Your task to perform on an android device: Search for Mexican restaurants on Maps Image 0: 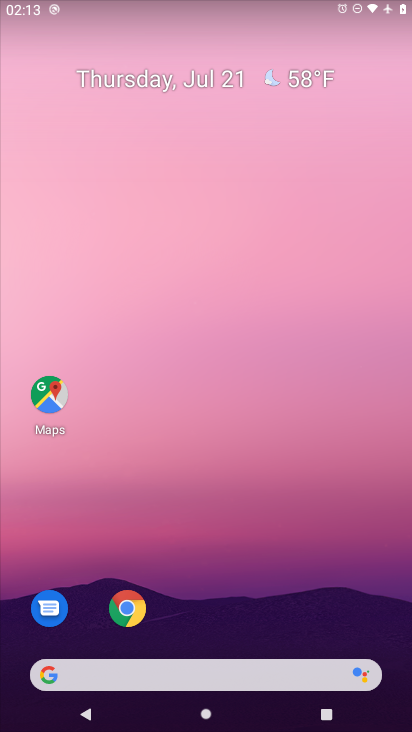
Step 0: press home button
Your task to perform on an android device: Search for Mexican restaurants on Maps Image 1: 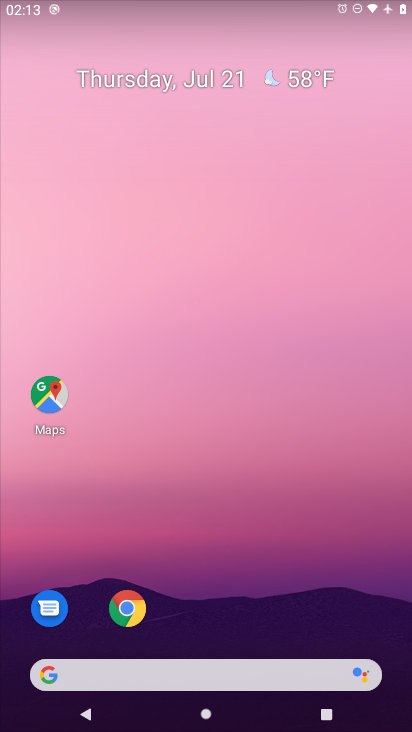
Step 1: drag from (264, 630) to (282, 46)
Your task to perform on an android device: Search for Mexican restaurants on Maps Image 2: 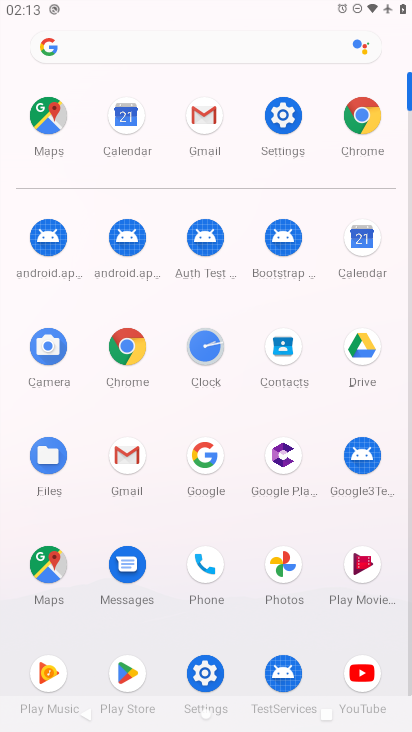
Step 2: click (46, 132)
Your task to perform on an android device: Search for Mexican restaurants on Maps Image 3: 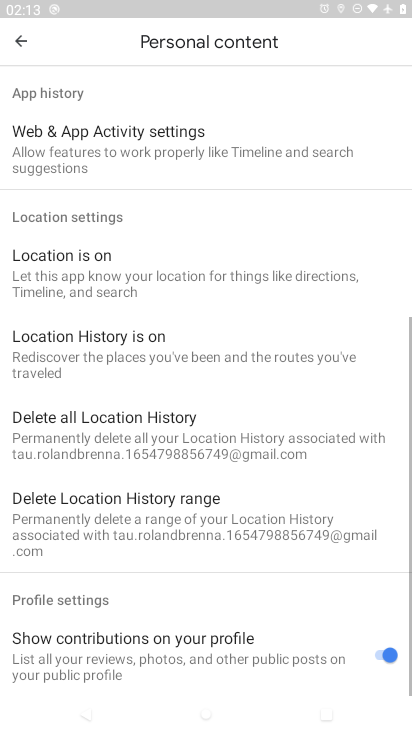
Step 3: click (21, 44)
Your task to perform on an android device: Search for Mexican restaurants on Maps Image 4: 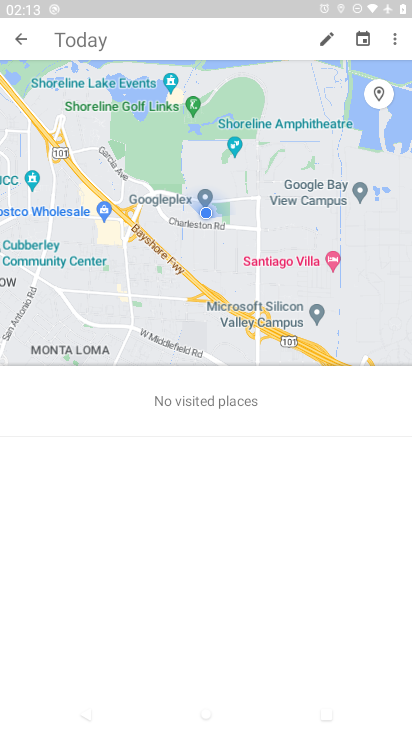
Step 4: click (109, 42)
Your task to perform on an android device: Search for Mexican restaurants on Maps Image 5: 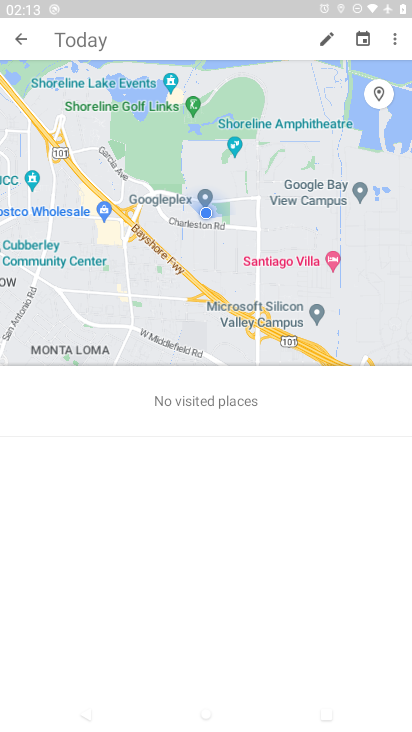
Step 5: click (131, 38)
Your task to perform on an android device: Search for Mexican restaurants on Maps Image 6: 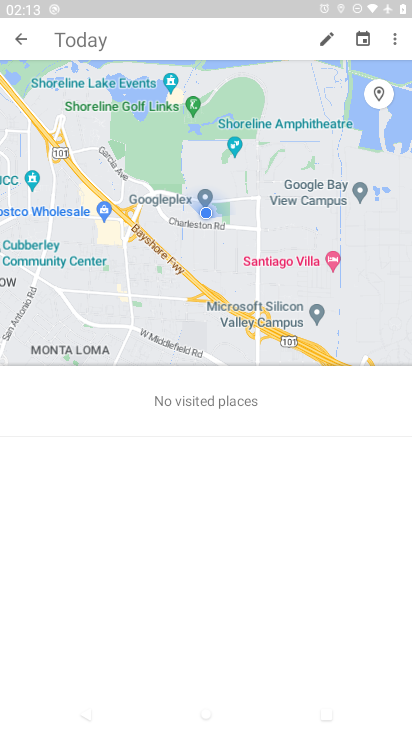
Step 6: click (24, 34)
Your task to perform on an android device: Search for Mexican restaurants on Maps Image 7: 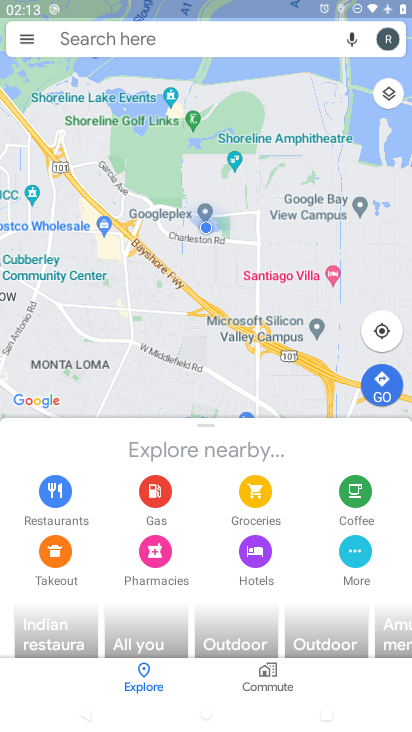
Step 7: click (133, 39)
Your task to perform on an android device: Search for Mexican restaurants on Maps Image 8: 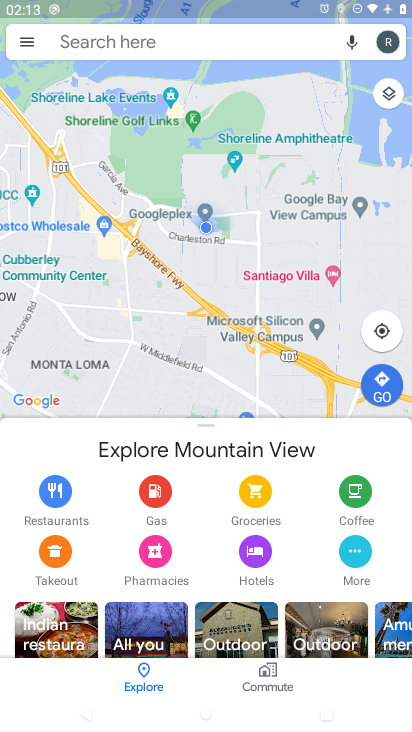
Step 8: click (134, 37)
Your task to perform on an android device: Search for Mexican restaurants on Maps Image 9: 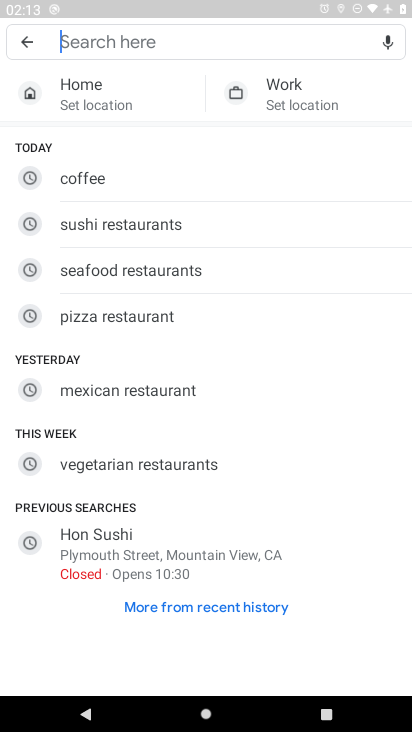
Step 9: click (122, 387)
Your task to perform on an android device: Search for Mexican restaurants on Maps Image 10: 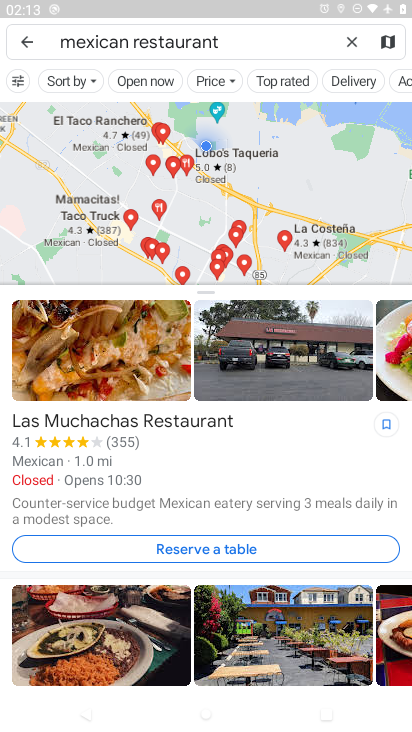
Step 10: task complete